Your task to perform on an android device: clear history in the chrome app Image 0: 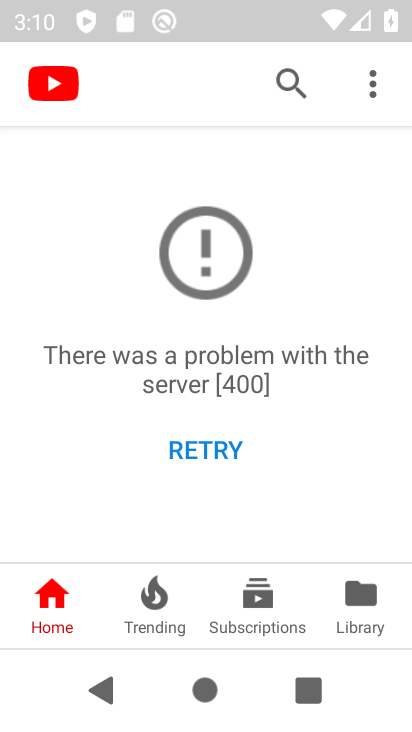
Step 0: press home button
Your task to perform on an android device: clear history in the chrome app Image 1: 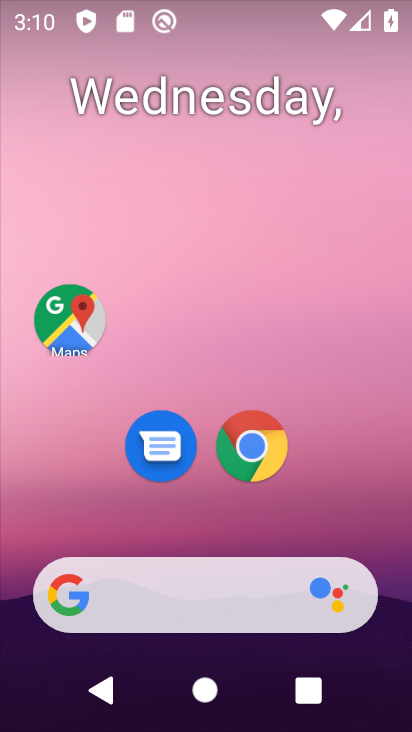
Step 1: click (268, 439)
Your task to perform on an android device: clear history in the chrome app Image 2: 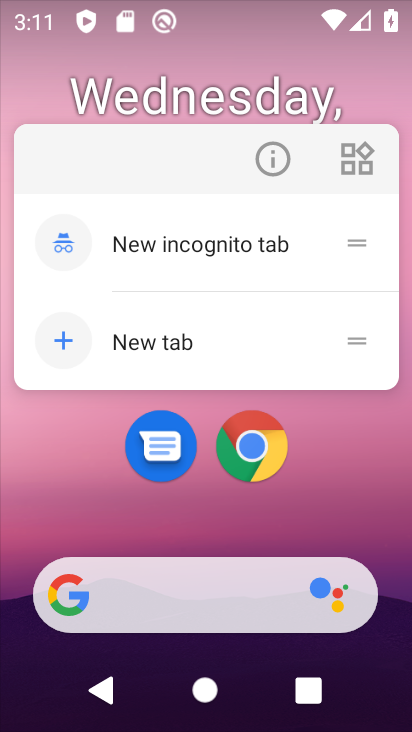
Step 2: click (297, 442)
Your task to perform on an android device: clear history in the chrome app Image 3: 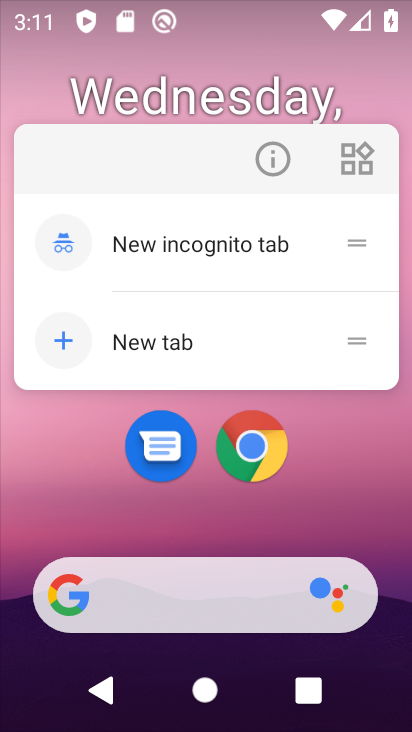
Step 3: click (260, 443)
Your task to perform on an android device: clear history in the chrome app Image 4: 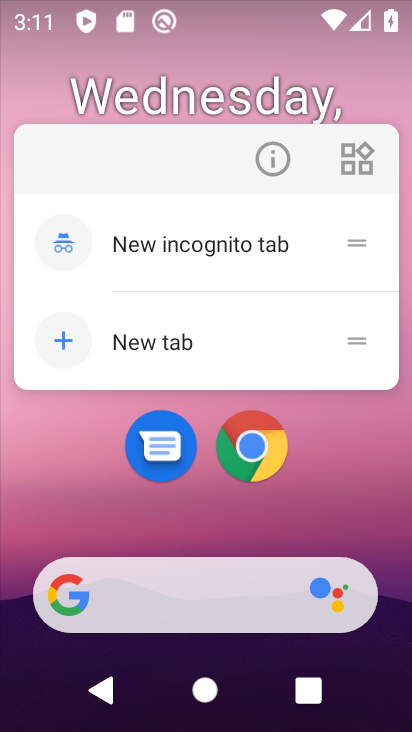
Step 4: click (260, 443)
Your task to perform on an android device: clear history in the chrome app Image 5: 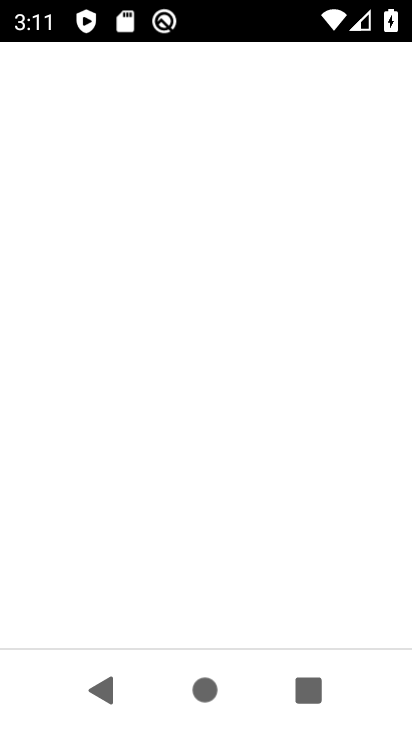
Step 5: click (259, 453)
Your task to perform on an android device: clear history in the chrome app Image 6: 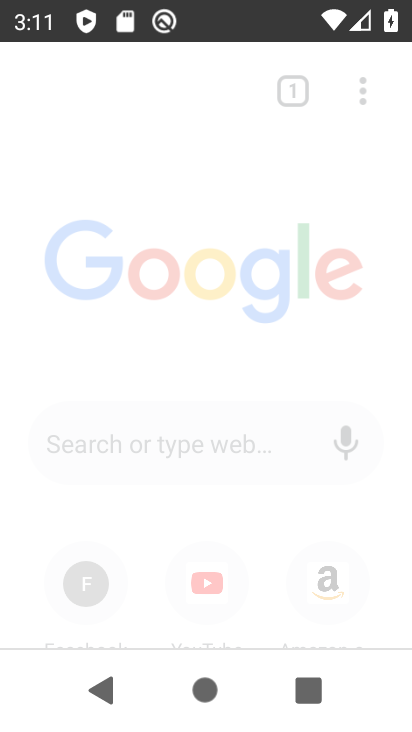
Step 6: click (259, 453)
Your task to perform on an android device: clear history in the chrome app Image 7: 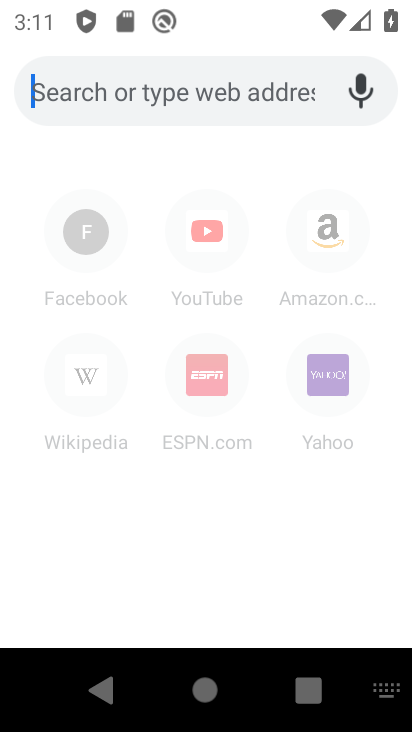
Step 7: click (360, 175)
Your task to perform on an android device: clear history in the chrome app Image 8: 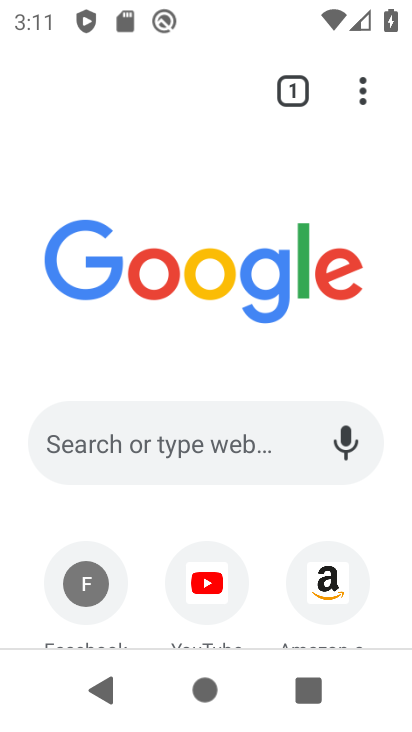
Step 8: click (362, 96)
Your task to perform on an android device: clear history in the chrome app Image 9: 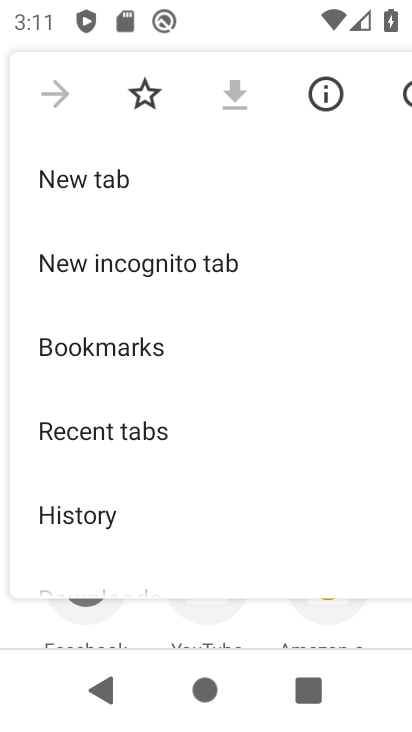
Step 9: click (99, 521)
Your task to perform on an android device: clear history in the chrome app Image 10: 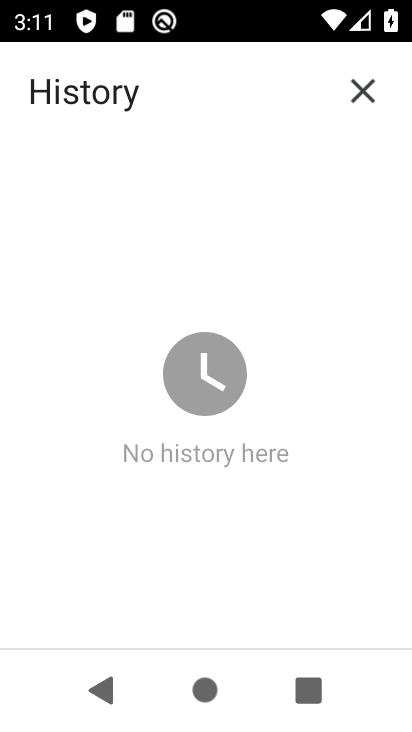
Step 10: task complete